Your task to perform on an android device: turn off location history Image 0: 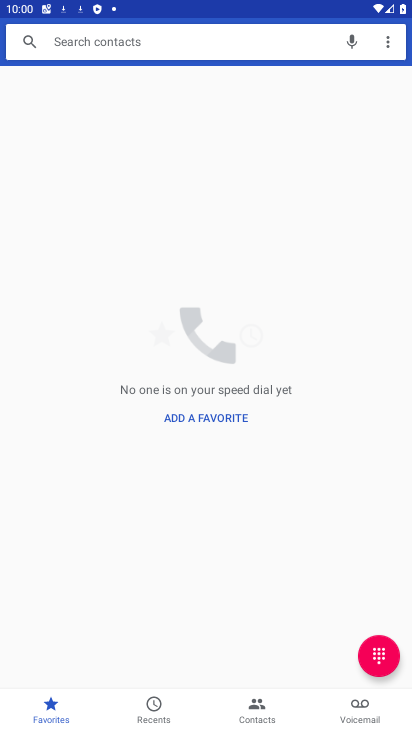
Step 0: press home button
Your task to perform on an android device: turn off location history Image 1: 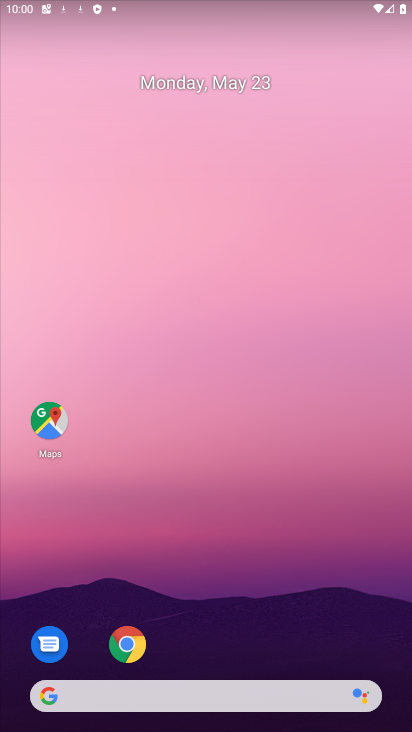
Step 1: drag from (230, 705) to (233, 205)
Your task to perform on an android device: turn off location history Image 2: 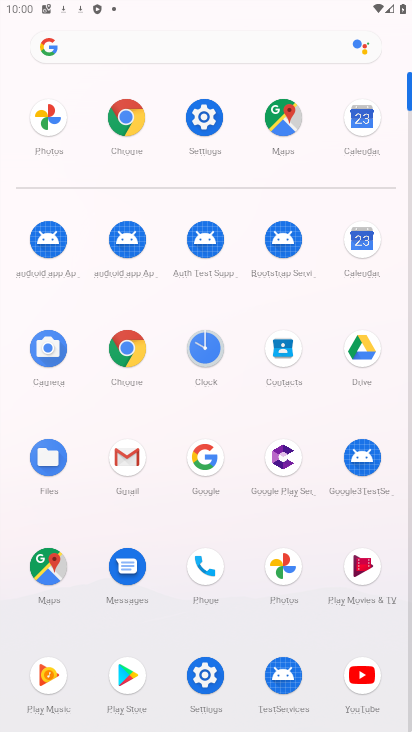
Step 2: click (211, 132)
Your task to perform on an android device: turn off location history Image 3: 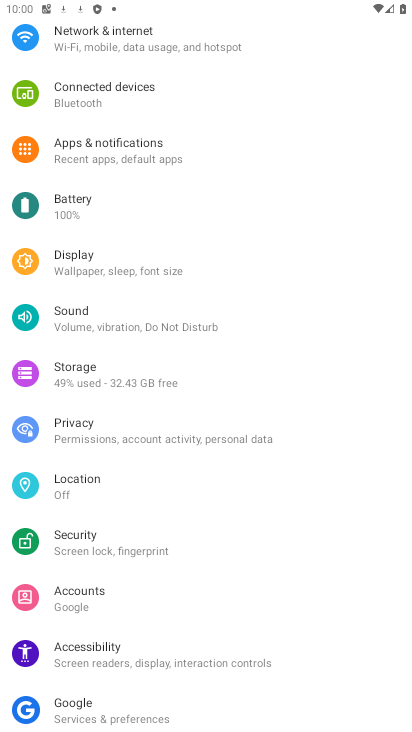
Step 3: click (111, 475)
Your task to perform on an android device: turn off location history Image 4: 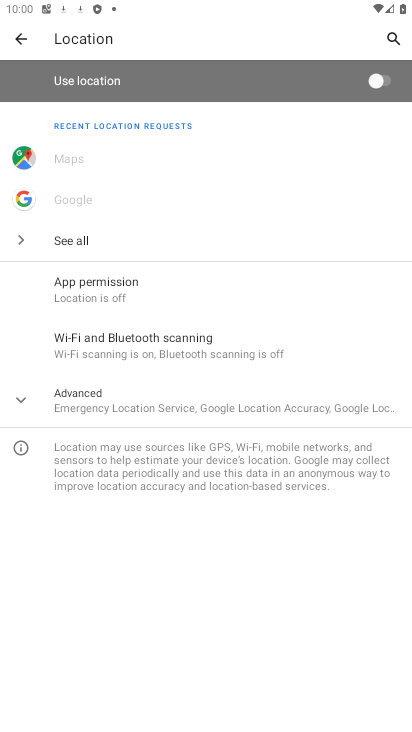
Step 4: click (368, 94)
Your task to perform on an android device: turn off location history Image 5: 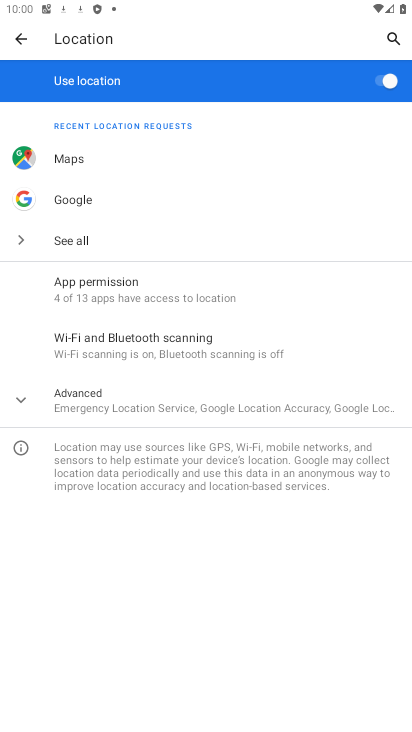
Step 5: click (35, 395)
Your task to perform on an android device: turn off location history Image 6: 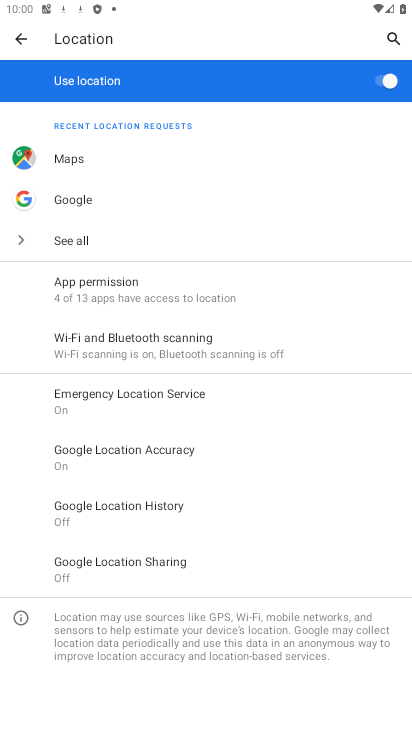
Step 6: click (137, 501)
Your task to perform on an android device: turn off location history Image 7: 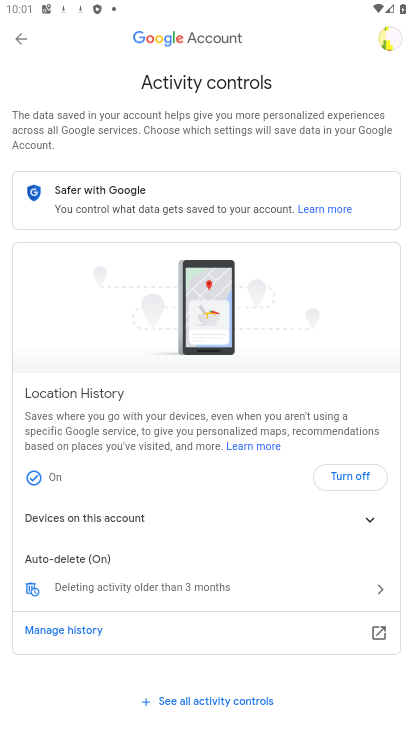
Step 7: click (355, 469)
Your task to perform on an android device: turn off location history Image 8: 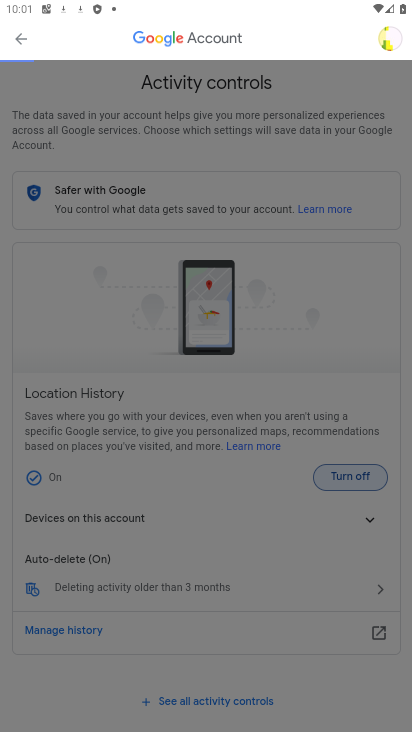
Step 8: task complete